Your task to perform on an android device: turn notification dots on Image 0: 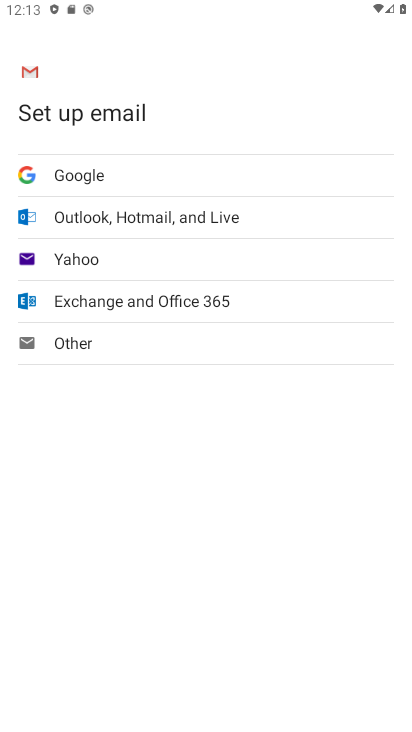
Step 0: press home button
Your task to perform on an android device: turn notification dots on Image 1: 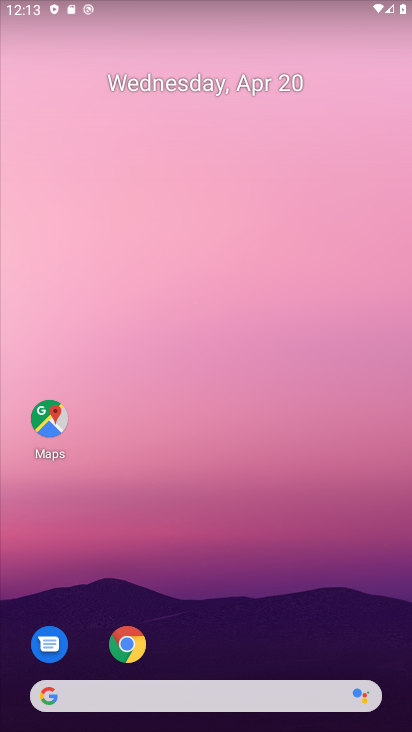
Step 1: drag from (262, 649) to (145, 0)
Your task to perform on an android device: turn notification dots on Image 2: 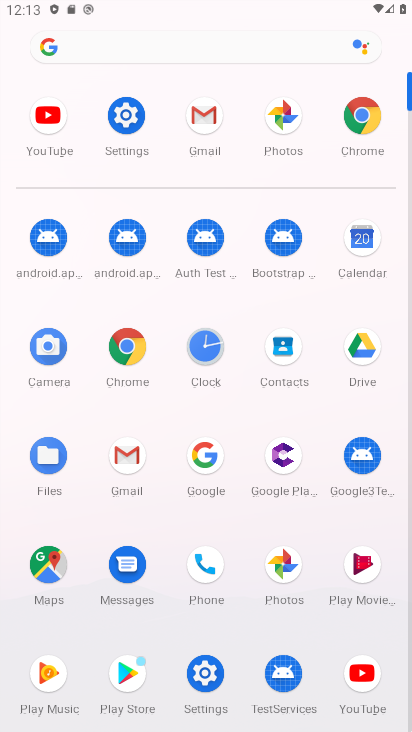
Step 2: click (125, 124)
Your task to perform on an android device: turn notification dots on Image 3: 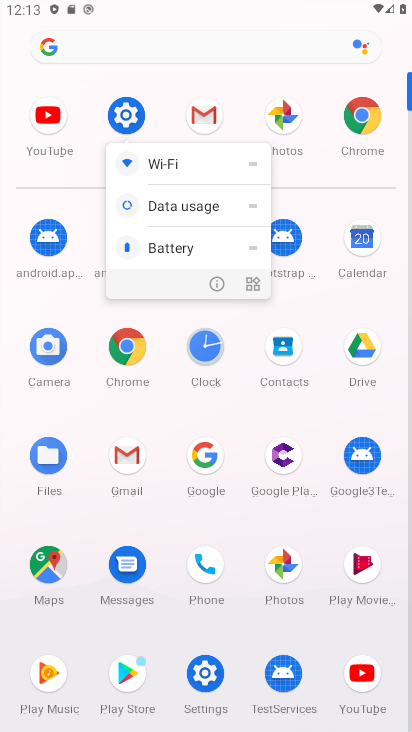
Step 3: click (125, 116)
Your task to perform on an android device: turn notification dots on Image 4: 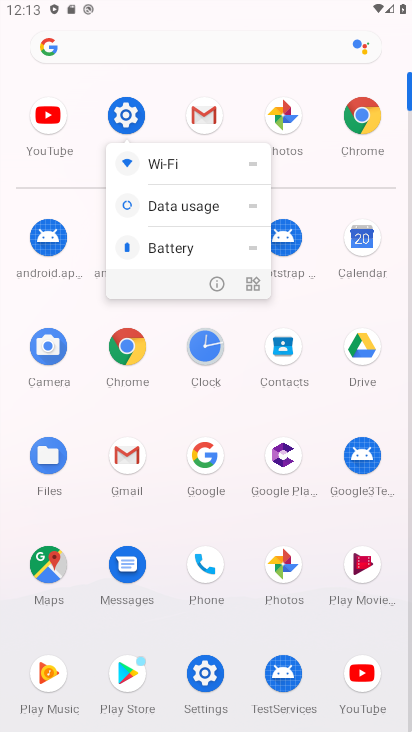
Step 4: click (125, 111)
Your task to perform on an android device: turn notification dots on Image 5: 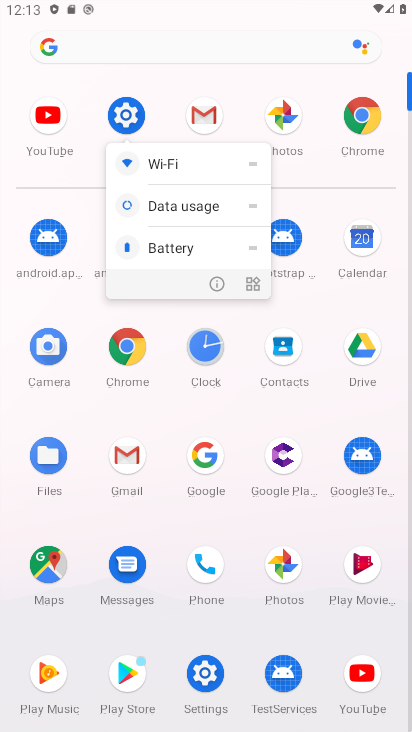
Step 5: click (125, 109)
Your task to perform on an android device: turn notification dots on Image 6: 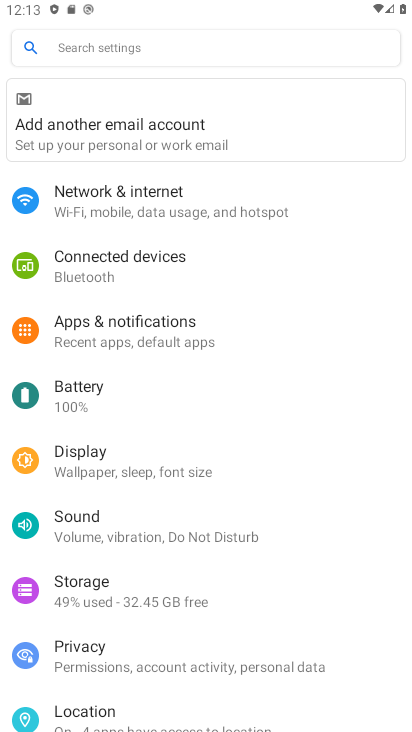
Step 6: click (154, 321)
Your task to perform on an android device: turn notification dots on Image 7: 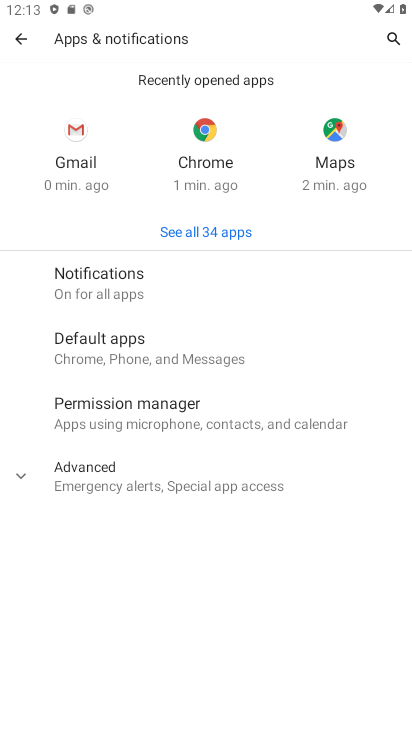
Step 7: click (123, 280)
Your task to perform on an android device: turn notification dots on Image 8: 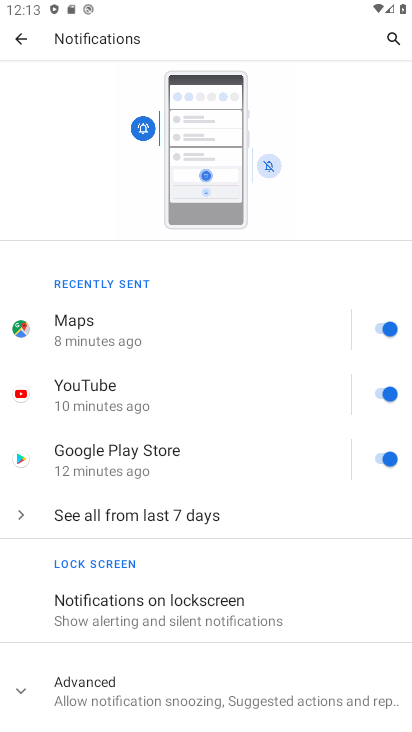
Step 8: click (20, 683)
Your task to perform on an android device: turn notification dots on Image 9: 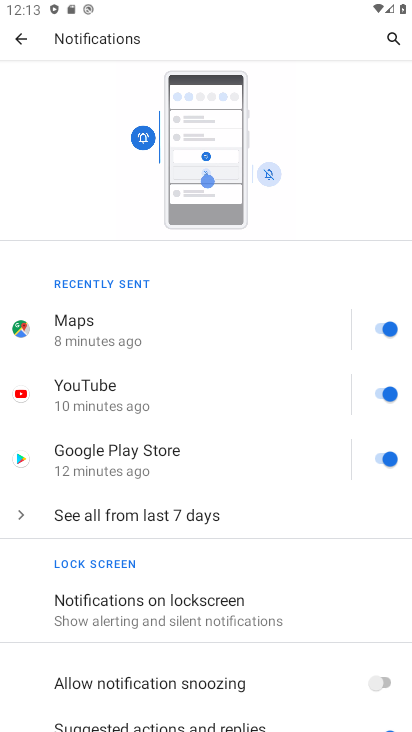
Step 9: task complete